Your task to perform on an android device: stop showing notifications on the lock screen Image 0: 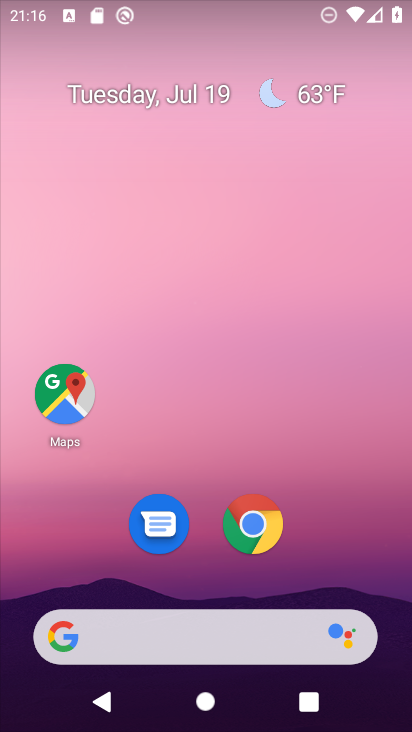
Step 0: drag from (317, 538) to (371, 78)
Your task to perform on an android device: stop showing notifications on the lock screen Image 1: 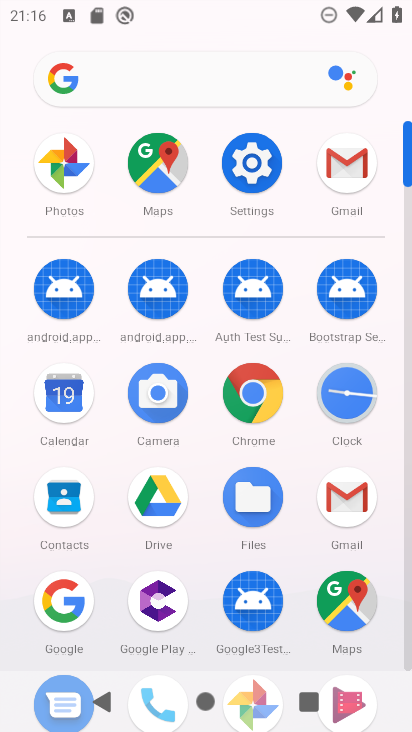
Step 1: click (265, 163)
Your task to perform on an android device: stop showing notifications on the lock screen Image 2: 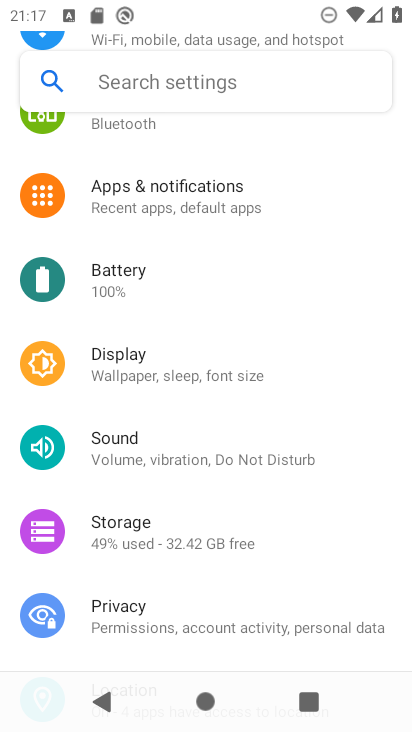
Step 2: click (222, 186)
Your task to perform on an android device: stop showing notifications on the lock screen Image 3: 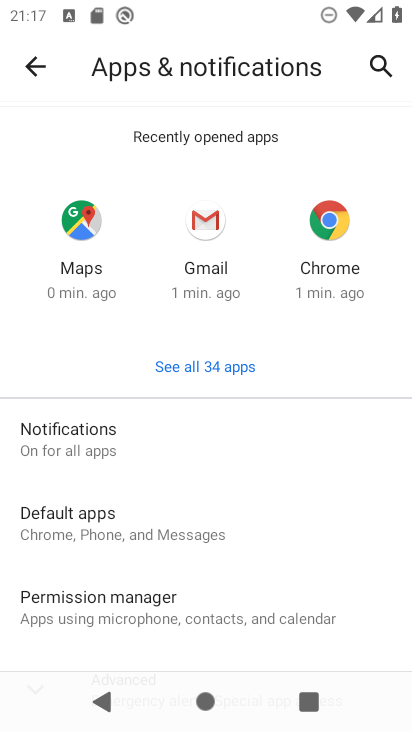
Step 3: click (74, 430)
Your task to perform on an android device: stop showing notifications on the lock screen Image 4: 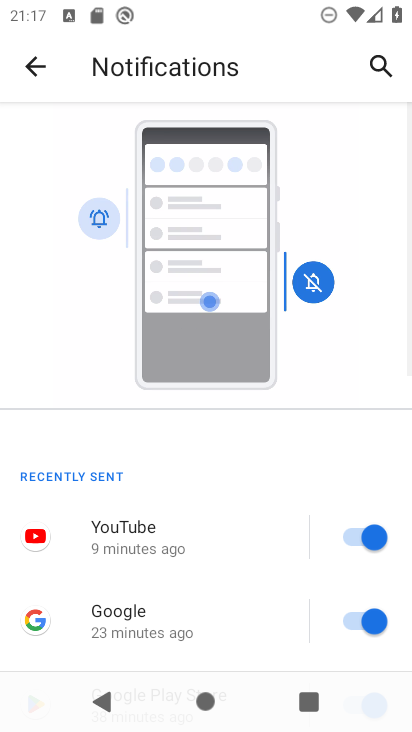
Step 4: drag from (237, 541) to (277, 137)
Your task to perform on an android device: stop showing notifications on the lock screen Image 5: 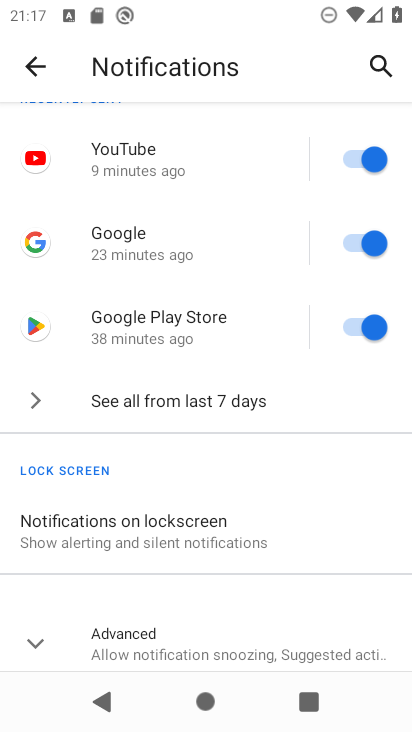
Step 5: click (195, 528)
Your task to perform on an android device: stop showing notifications on the lock screen Image 6: 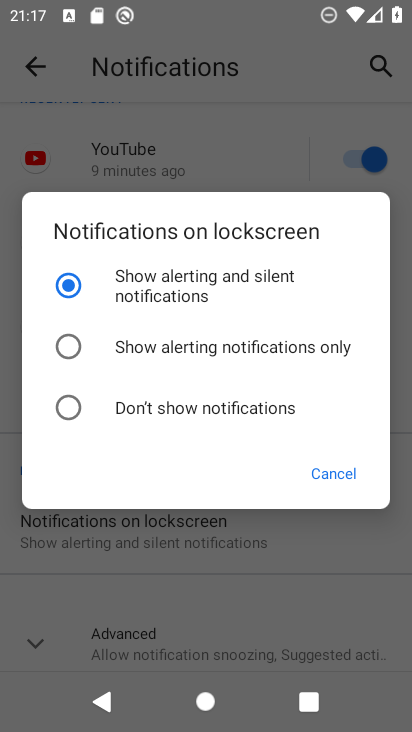
Step 6: click (71, 408)
Your task to perform on an android device: stop showing notifications on the lock screen Image 7: 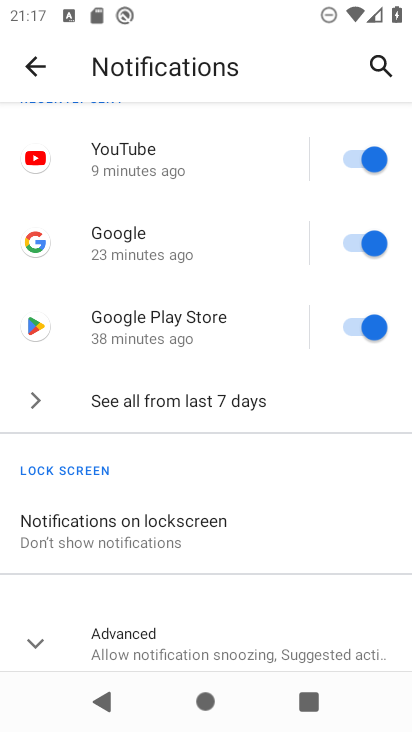
Step 7: task complete